Your task to perform on an android device: turn on airplane mode Image 0: 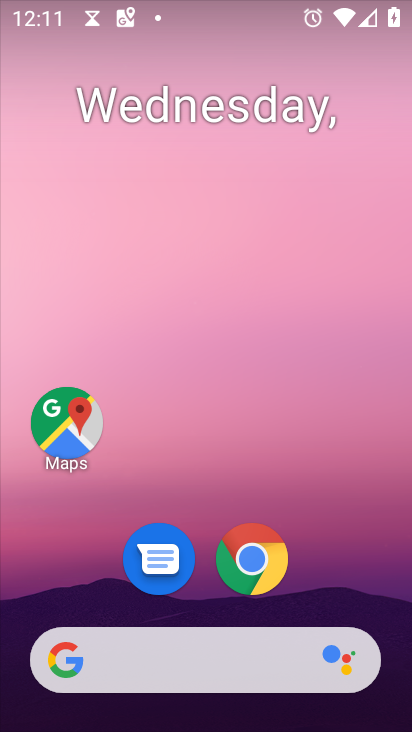
Step 0: drag from (342, 607) to (310, 43)
Your task to perform on an android device: turn on airplane mode Image 1: 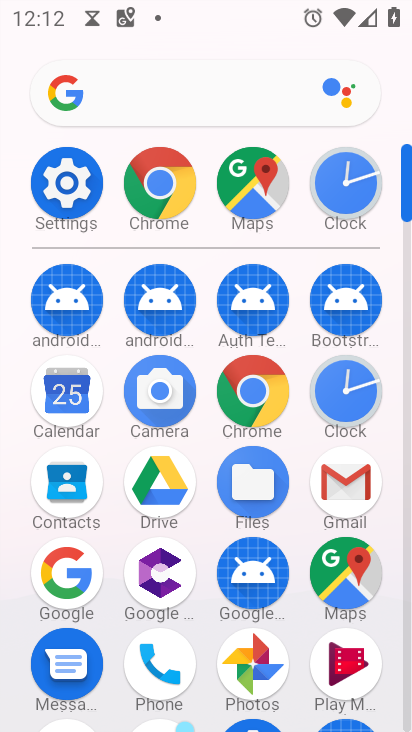
Step 1: click (63, 205)
Your task to perform on an android device: turn on airplane mode Image 2: 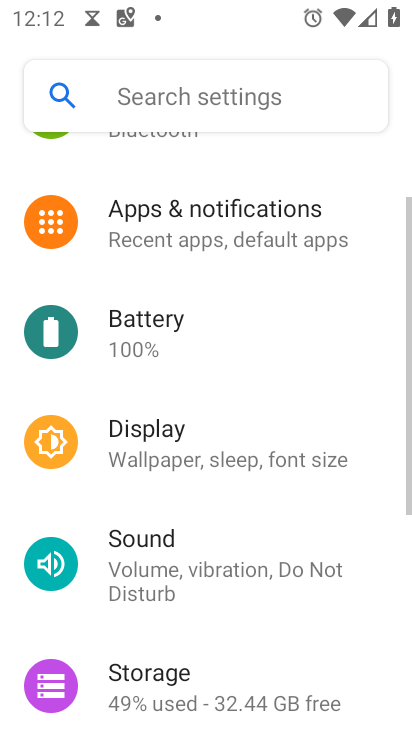
Step 2: drag from (222, 262) to (258, 636)
Your task to perform on an android device: turn on airplane mode Image 3: 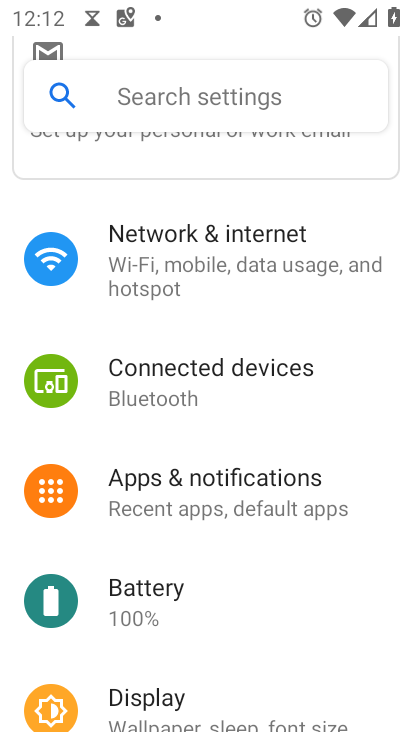
Step 3: click (189, 260)
Your task to perform on an android device: turn on airplane mode Image 4: 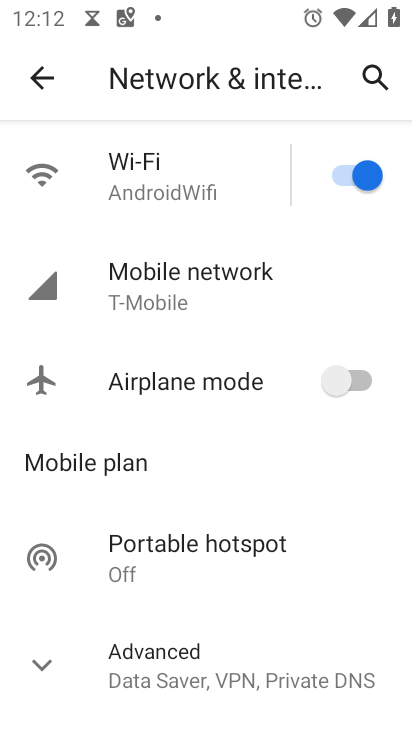
Step 4: drag from (194, 385) to (234, 560)
Your task to perform on an android device: turn on airplane mode Image 5: 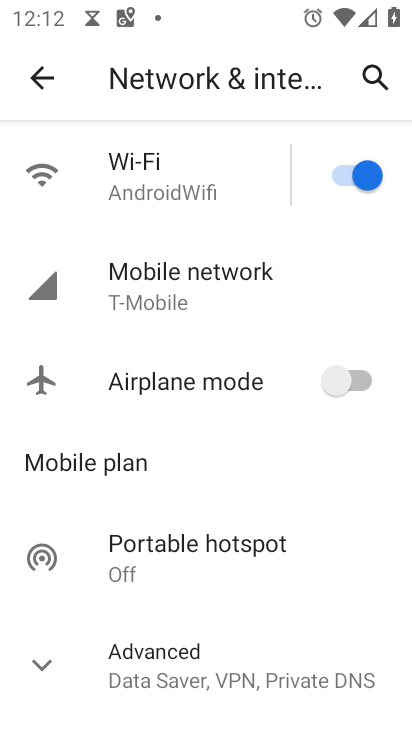
Step 5: drag from (223, 291) to (153, 731)
Your task to perform on an android device: turn on airplane mode Image 6: 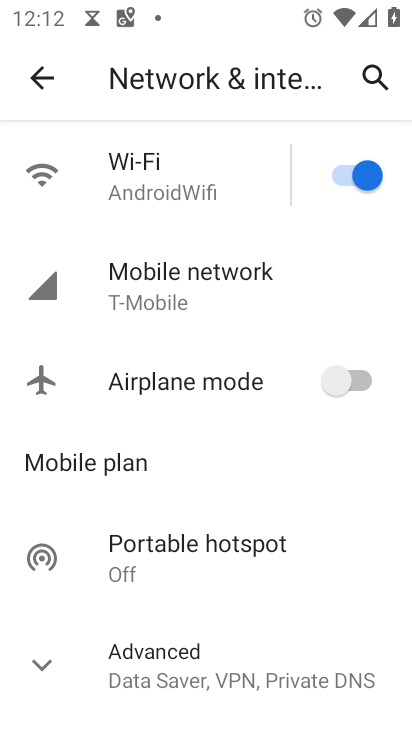
Step 6: click (350, 377)
Your task to perform on an android device: turn on airplane mode Image 7: 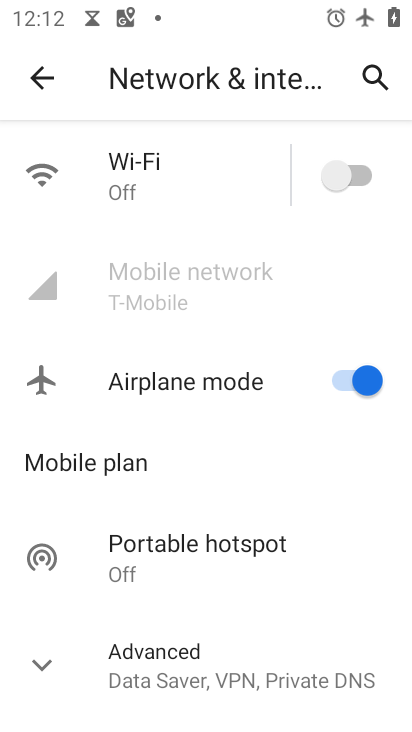
Step 7: task complete